Your task to perform on an android device: turn on airplane mode Image 0: 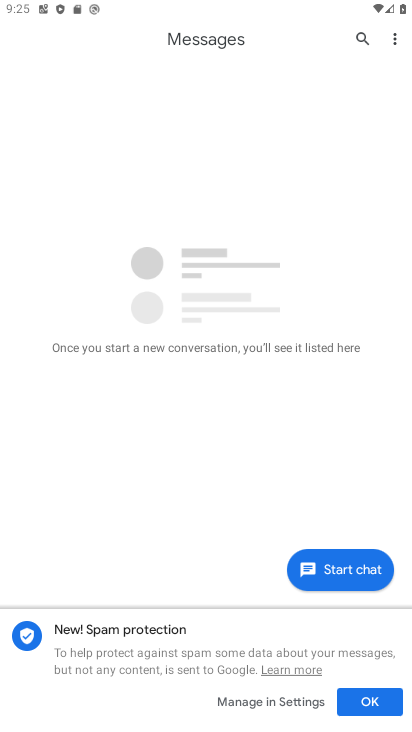
Step 0: press home button
Your task to perform on an android device: turn on airplane mode Image 1: 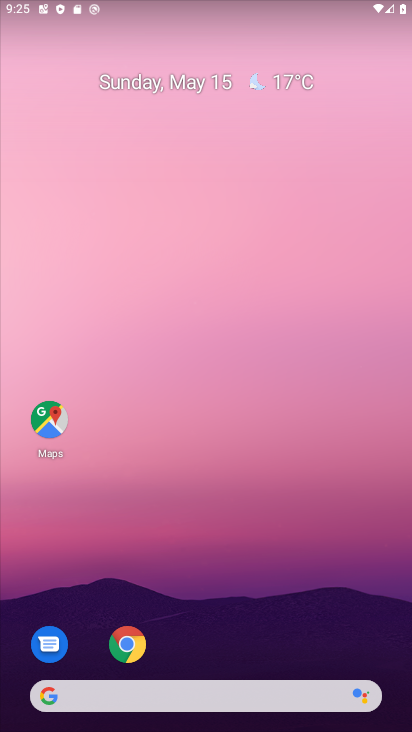
Step 1: drag from (217, 709) to (321, 202)
Your task to perform on an android device: turn on airplane mode Image 2: 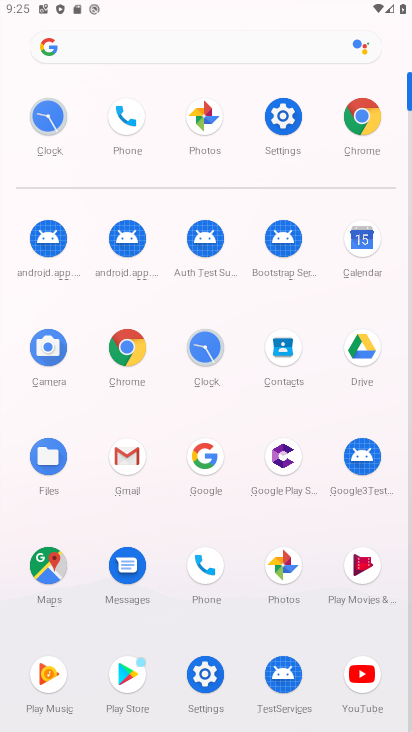
Step 2: click (275, 130)
Your task to perform on an android device: turn on airplane mode Image 3: 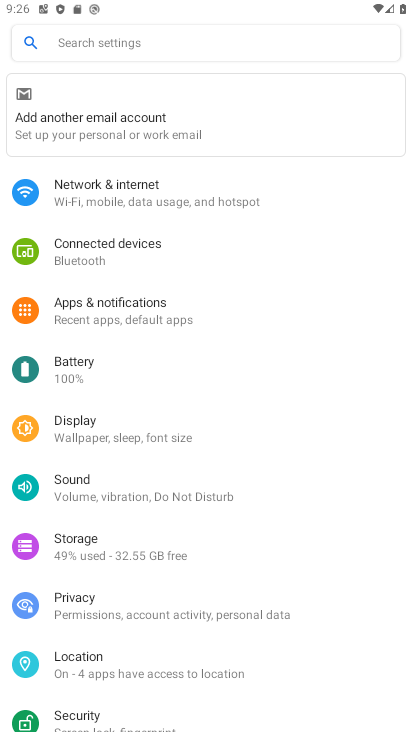
Step 3: click (133, 179)
Your task to perform on an android device: turn on airplane mode Image 4: 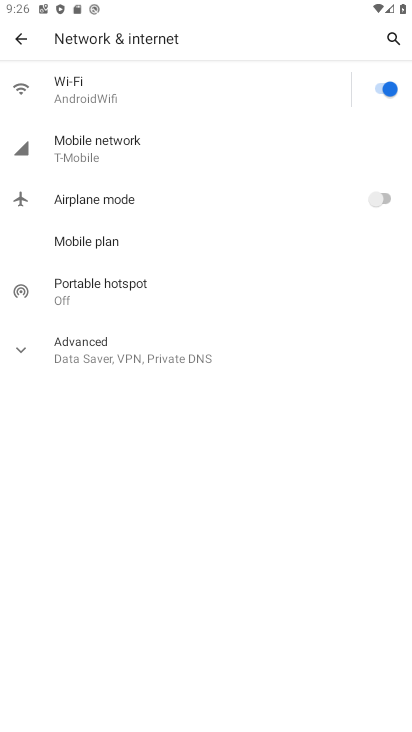
Step 4: click (373, 194)
Your task to perform on an android device: turn on airplane mode Image 5: 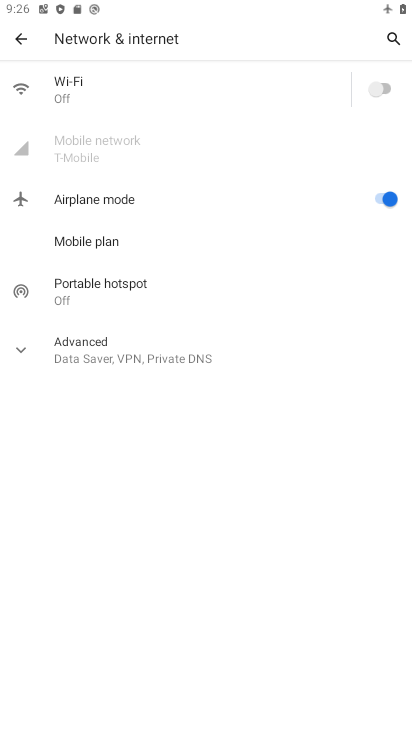
Step 5: task complete